Your task to perform on an android device: Check the news Image 0: 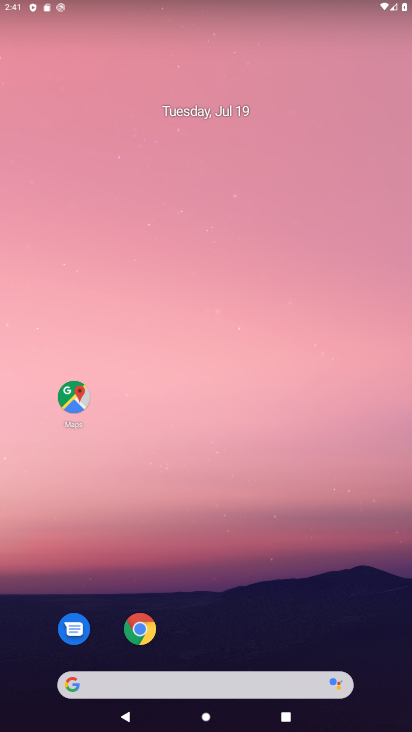
Step 0: click (146, 629)
Your task to perform on an android device: Check the news Image 1: 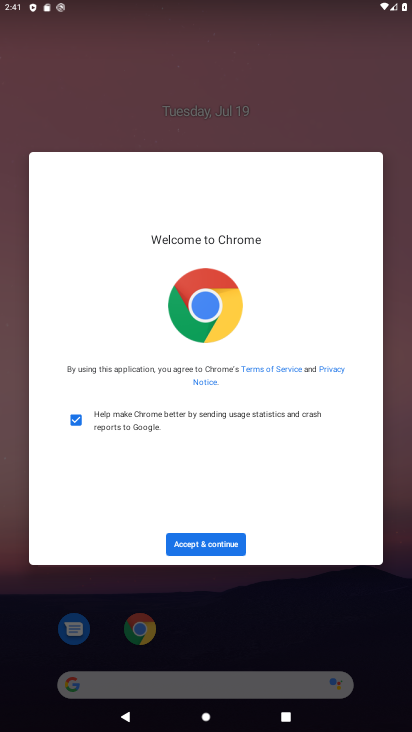
Step 1: click (194, 541)
Your task to perform on an android device: Check the news Image 2: 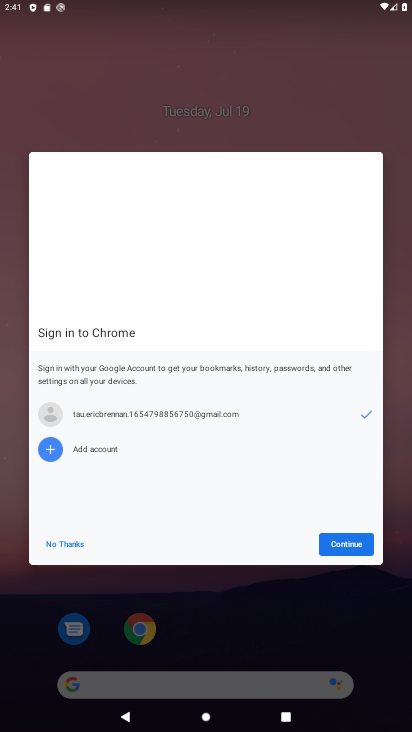
Step 2: click (334, 541)
Your task to perform on an android device: Check the news Image 3: 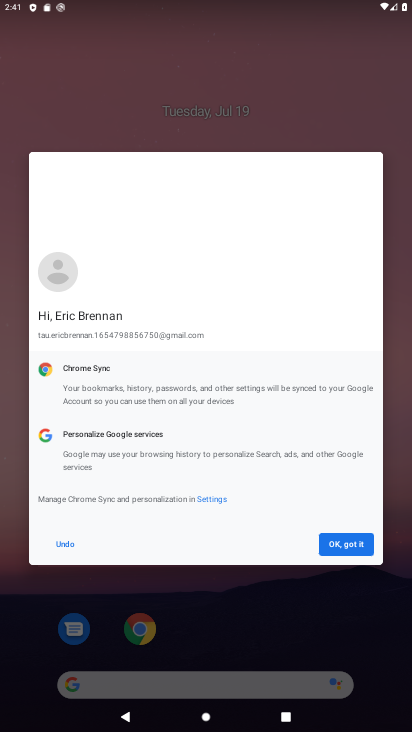
Step 3: click (328, 550)
Your task to perform on an android device: Check the news Image 4: 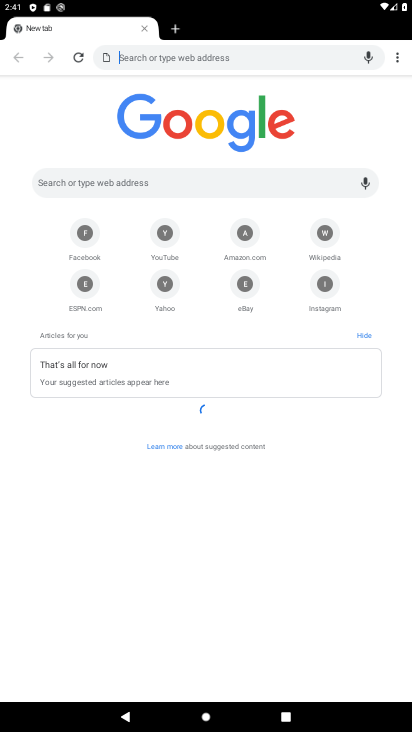
Step 4: click (194, 57)
Your task to perform on an android device: Check the news Image 5: 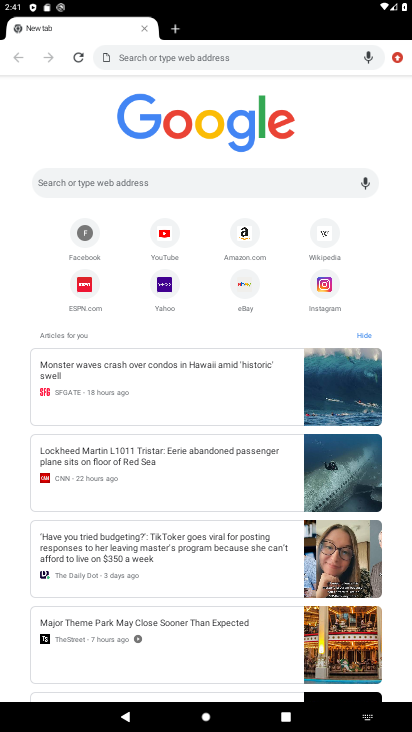
Step 5: type "news"
Your task to perform on an android device: Check the news Image 6: 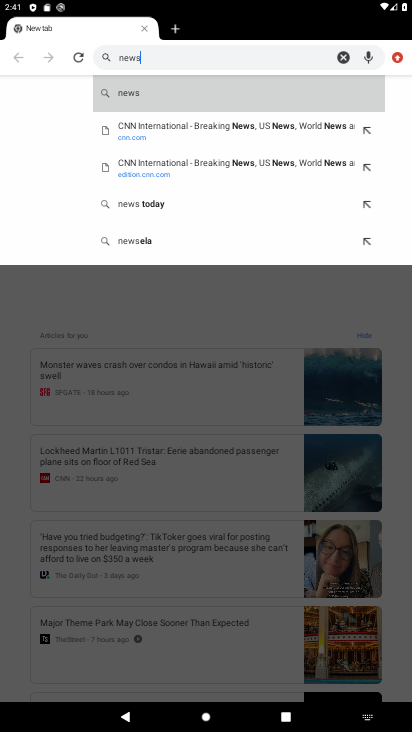
Step 6: click (138, 99)
Your task to perform on an android device: Check the news Image 7: 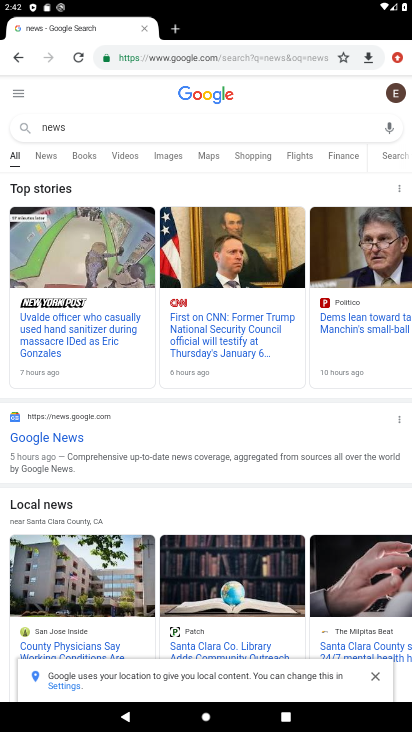
Step 7: task complete